Your task to perform on an android device: turn off picture-in-picture Image 0: 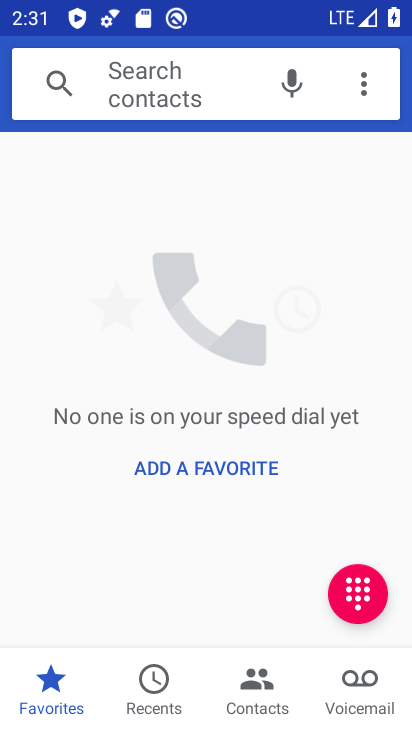
Step 0: press home button
Your task to perform on an android device: turn off picture-in-picture Image 1: 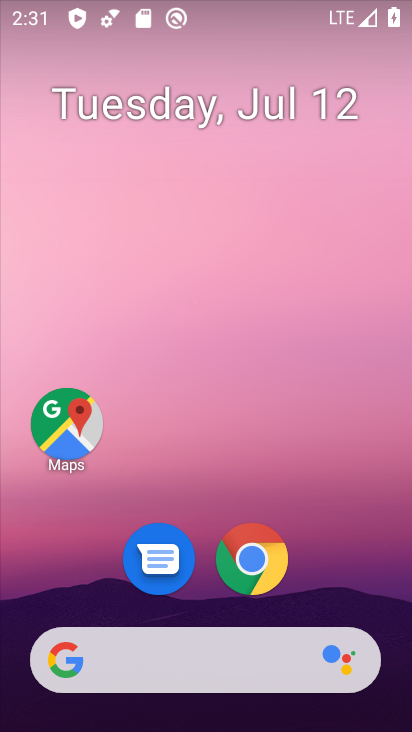
Step 1: drag from (370, 606) to (359, 222)
Your task to perform on an android device: turn off picture-in-picture Image 2: 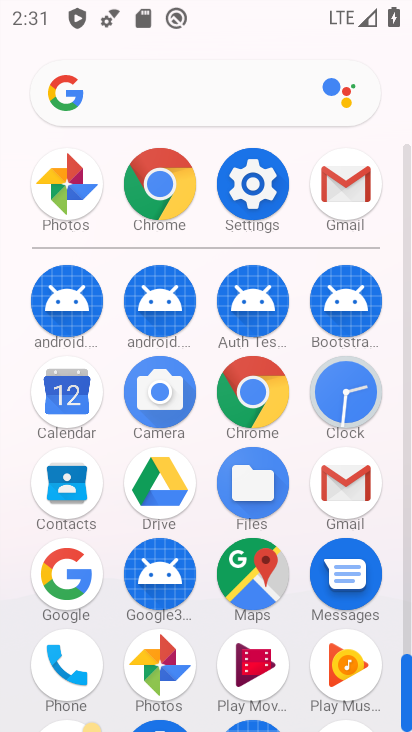
Step 2: click (257, 208)
Your task to perform on an android device: turn off picture-in-picture Image 3: 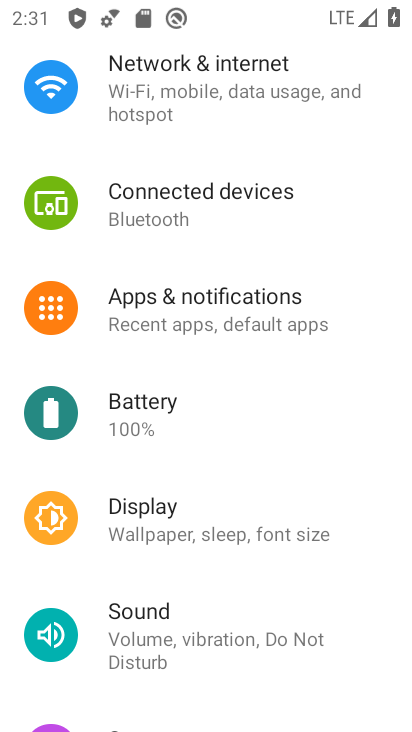
Step 3: drag from (329, 245) to (339, 323)
Your task to perform on an android device: turn off picture-in-picture Image 4: 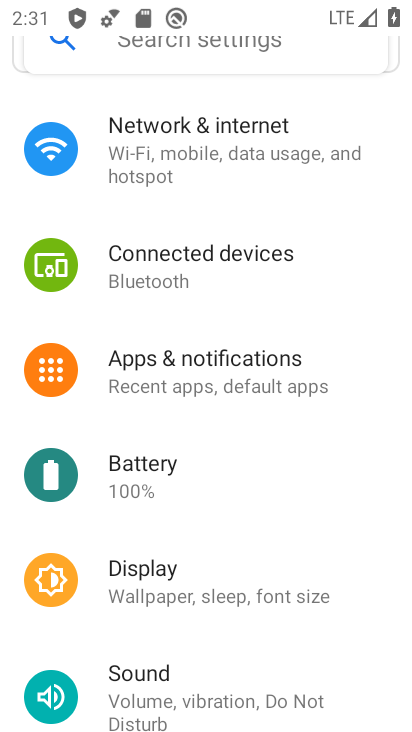
Step 4: drag from (355, 228) to (354, 334)
Your task to perform on an android device: turn off picture-in-picture Image 5: 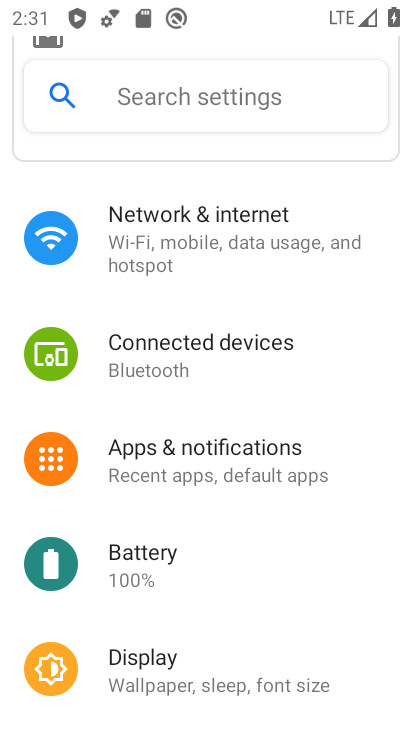
Step 5: drag from (369, 248) to (370, 367)
Your task to perform on an android device: turn off picture-in-picture Image 6: 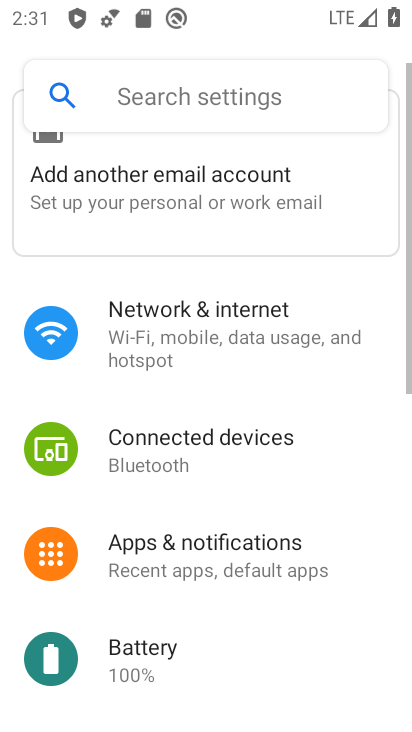
Step 6: drag from (357, 444) to (357, 361)
Your task to perform on an android device: turn off picture-in-picture Image 7: 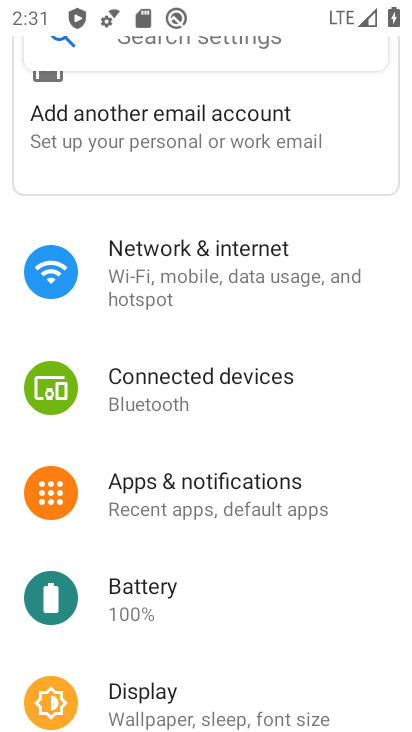
Step 7: drag from (360, 432) to (361, 351)
Your task to perform on an android device: turn off picture-in-picture Image 8: 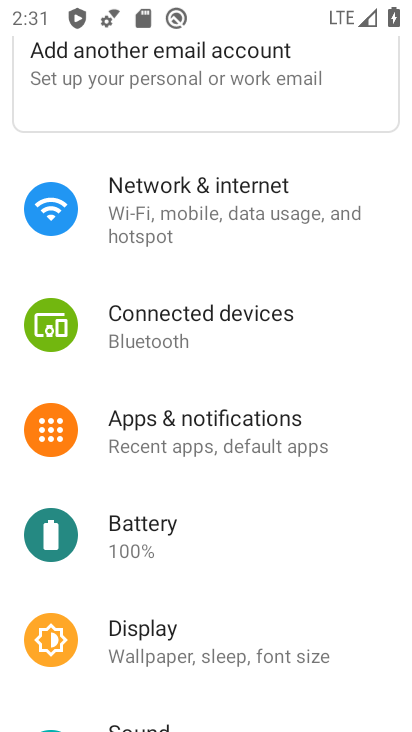
Step 8: drag from (362, 402) to (360, 328)
Your task to perform on an android device: turn off picture-in-picture Image 9: 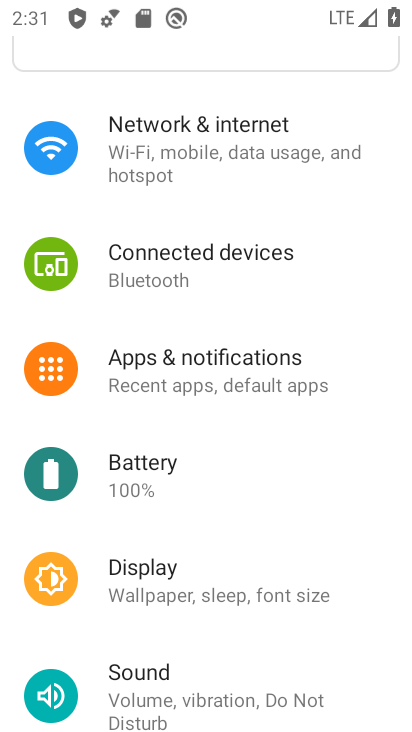
Step 9: click (324, 381)
Your task to perform on an android device: turn off picture-in-picture Image 10: 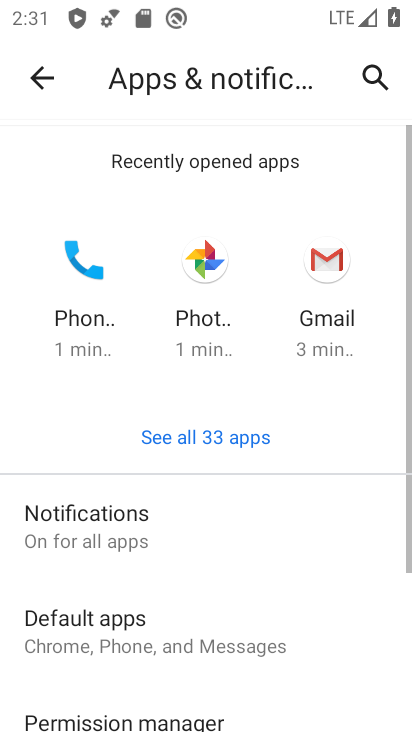
Step 10: drag from (334, 507) to (334, 386)
Your task to perform on an android device: turn off picture-in-picture Image 11: 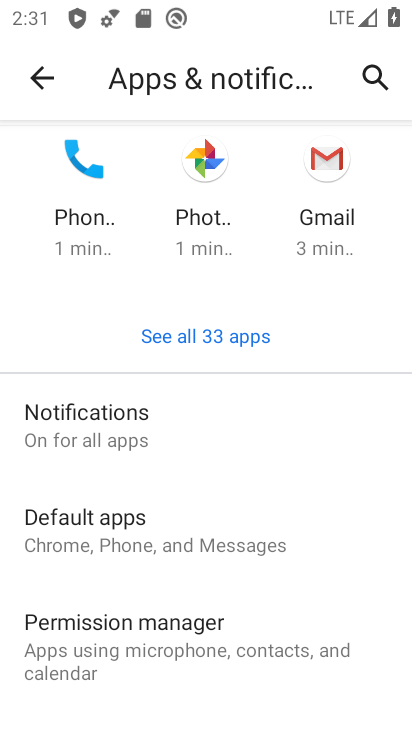
Step 11: drag from (339, 458) to (343, 370)
Your task to perform on an android device: turn off picture-in-picture Image 12: 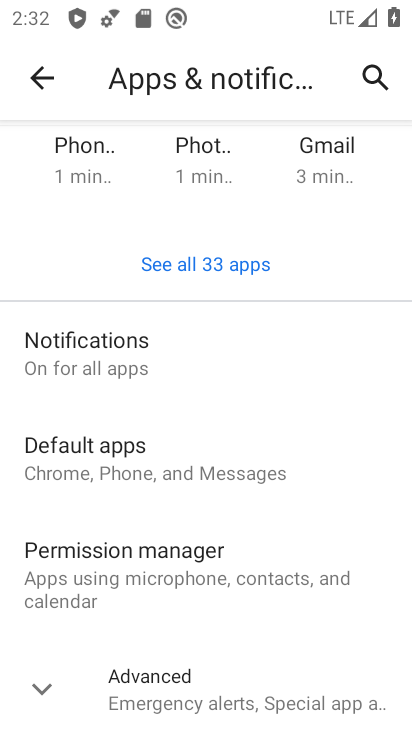
Step 12: click (266, 690)
Your task to perform on an android device: turn off picture-in-picture Image 13: 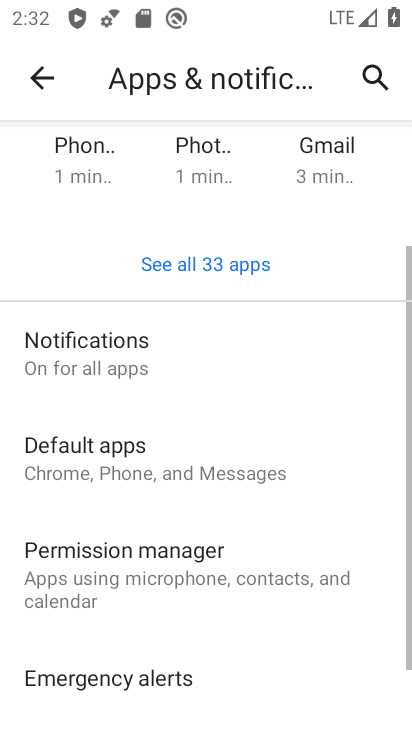
Step 13: drag from (356, 629) to (333, 467)
Your task to perform on an android device: turn off picture-in-picture Image 14: 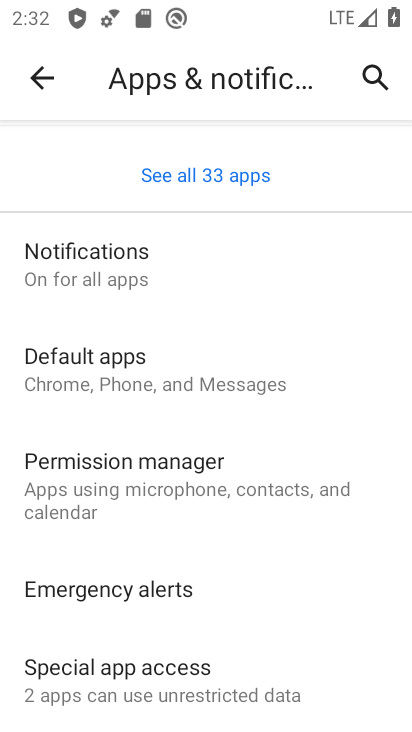
Step 14: click (282, 690)
Your task to perform on an android device: turn off picture-in-picture Image 15: 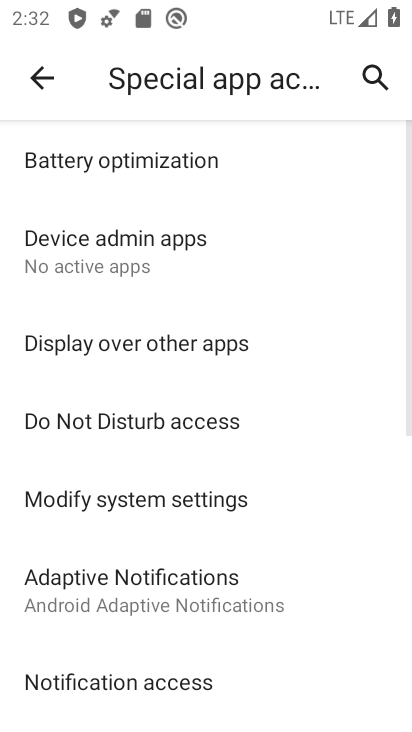
Step 15: drag from (328, 596) to (323, 442)
Your task to perform on an android device: turn off picture-in-picture Image 16: 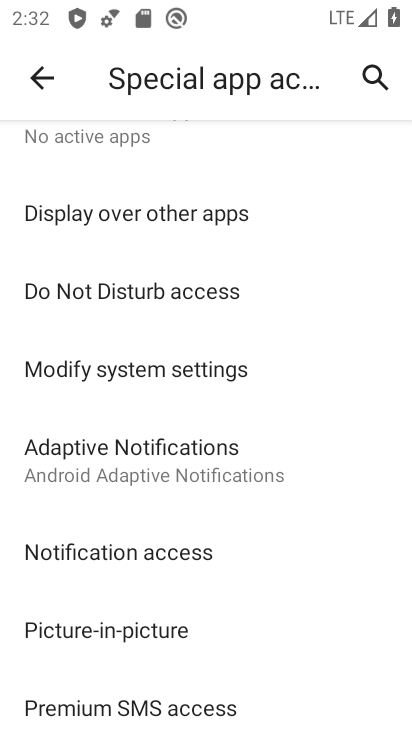
Step 16: drag from (308, 603) to (310, 431)
Your task to perform on an android device: turn off picture-in-picture Image 17: 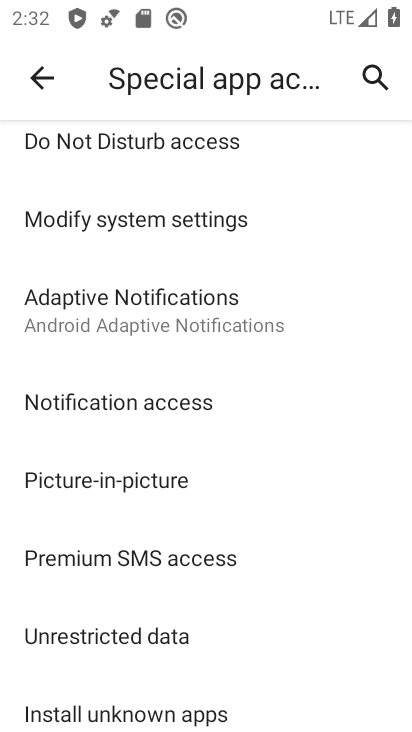
Step 17: click (190, 483)
Your task to perform on an android device: turn off picture-in-picture Image 18: 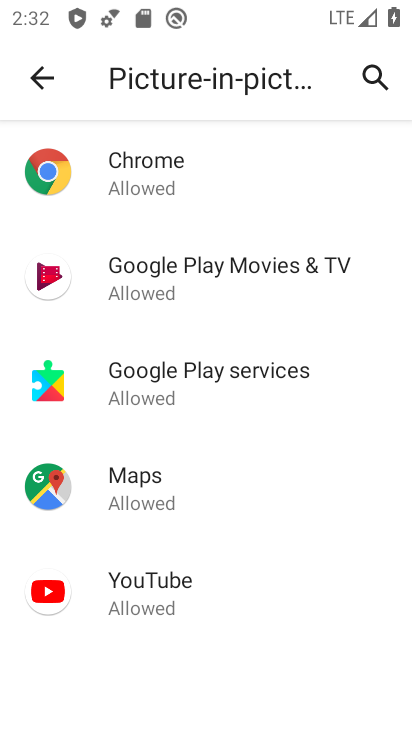
Step 18: click (162, 608)
Your task to perform on an android device: turn off picture-in-picture Image 19: 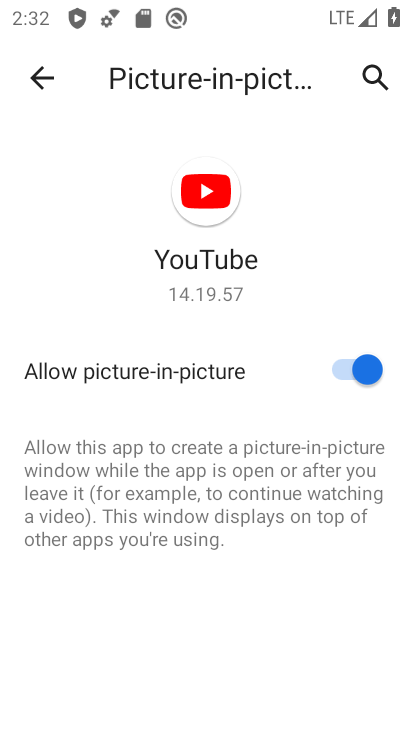
Step 19: click (342, 367)
Your task to perform on an android device: turn off picture-in-picture Image 20: 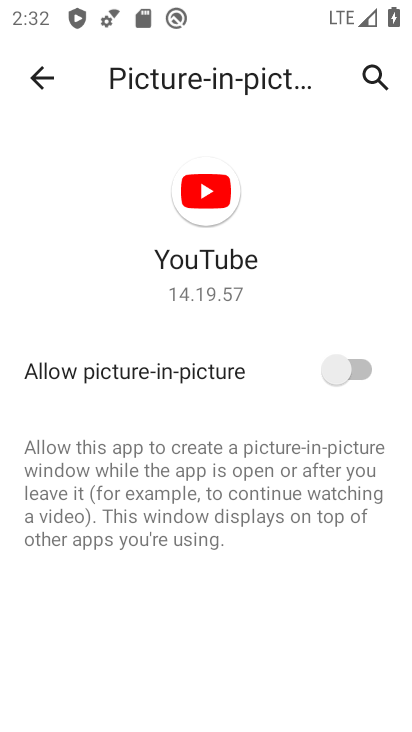
Step 20: task complete